Your task to perform on an android device: turn smart compose on in the gmail app Image 0: 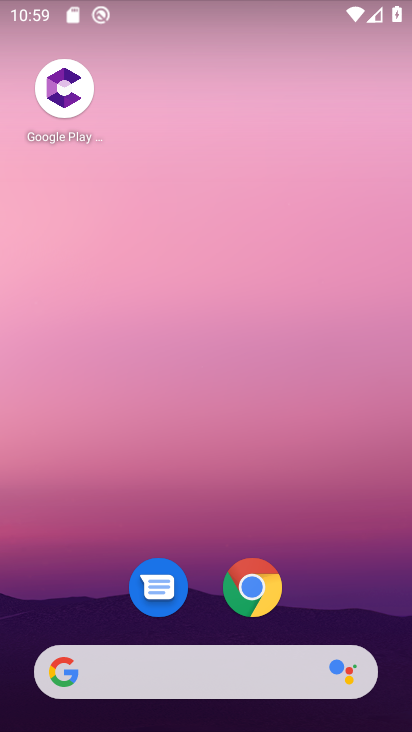
Step 0: drag from (203, 527) to (200, 203)
Your task to perform on an android device: turn smart compose on in the gmail app Image 1: 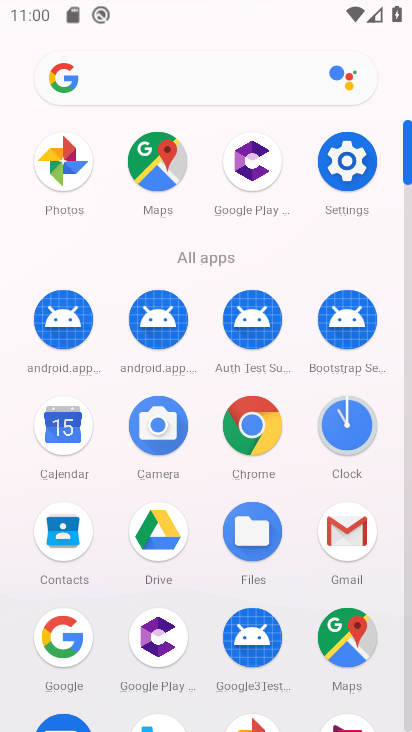
Step 1: click (325, 533)
Your task to perform on an android device: turn smart compose on in the gmail app Image 2: 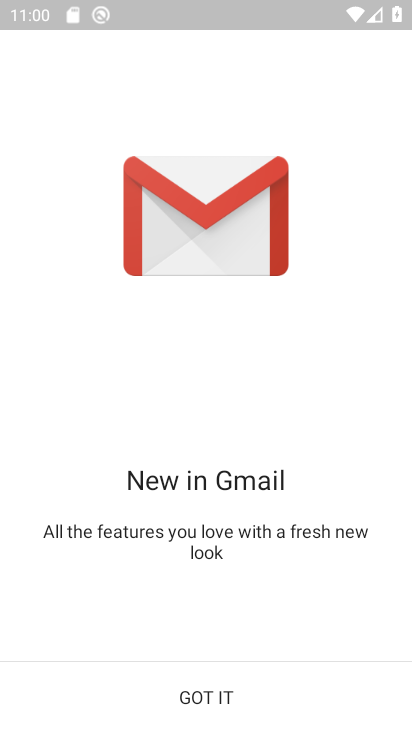
Step 2: click (311, 669)
Your task to perform on an android device: turn smart compose on in the gmail app Image 3: 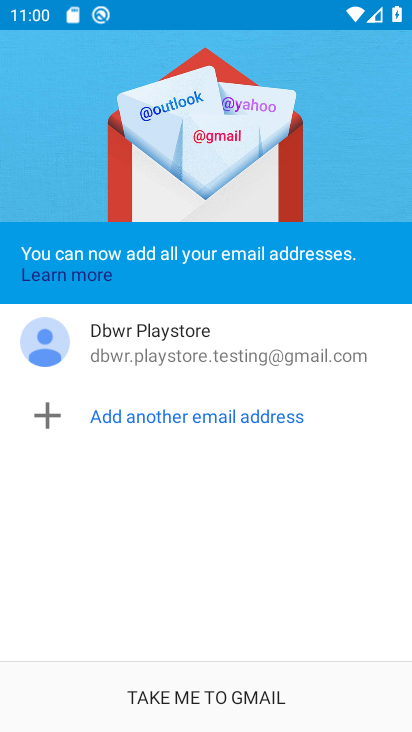
Step 3: click (243, 701)
Your task to perform on an android device: turn smart compose on in the gmail app Image 4: 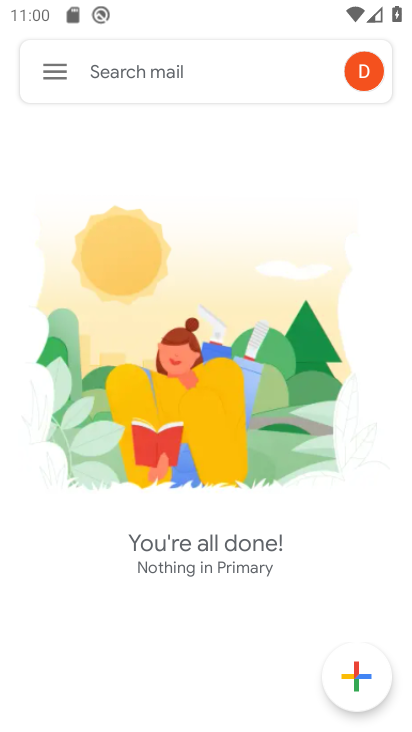
Step 4: click (45, 83)
Your task to perform on an android device: turn smart compose on in the gmail app Image 5: 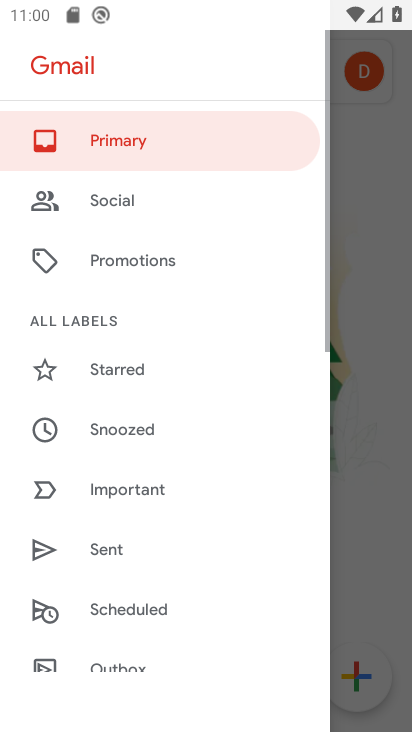
Step 5: drag from (110, 651) to (174, 282)
Your task to perform on an android device: turn smart compose on in the gmail app Image 6: 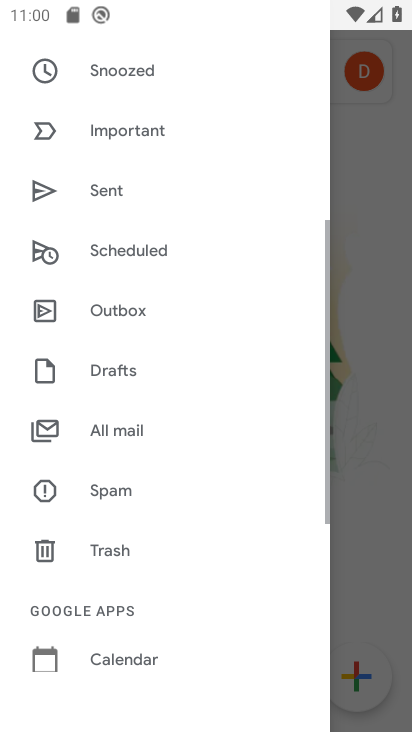
Step 6: drag from (143, 611) to (210, 285)
Your task to perform on an android device: turn smart compose on in the gmail app Image 7: 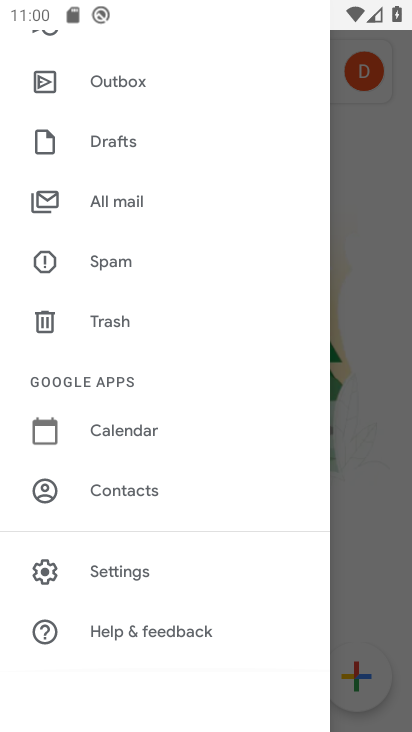
Step 7: click (115, 561)
Your task to perform on an android device: turn smart compose on in the gmail app Image 8: 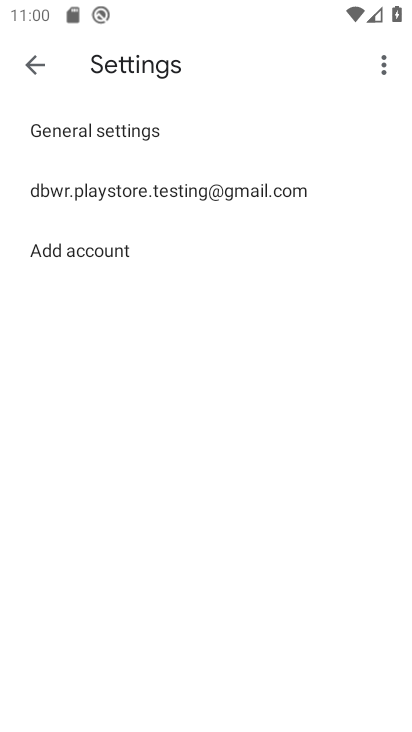
Step 8: click (177, 203)
Your task to perform on an android device: turn smart compose on in the gmail app Image 9: 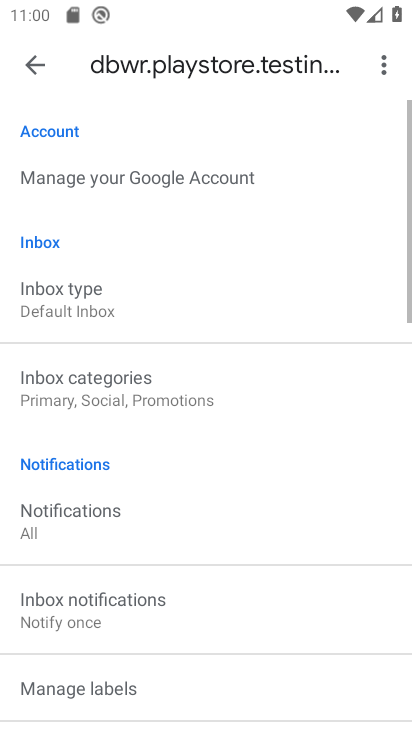
Step 9: task complete